Your task to perform on an android device: Open Chrome and go to settings Image 0: 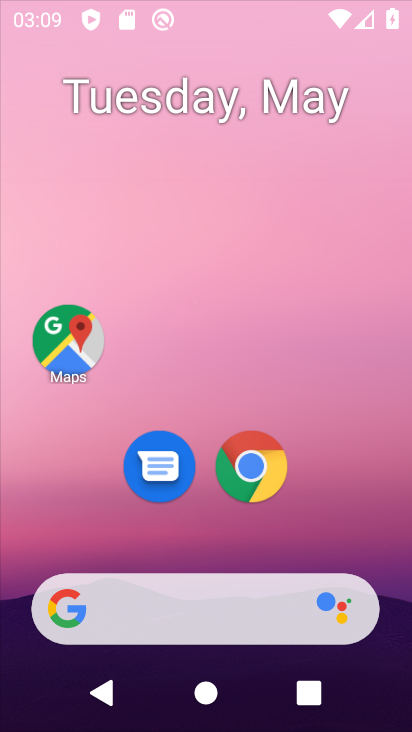
Step 0: drag from (280, 575) to (316, 215)
Your task to perform on an android device: Open Chrome and go to settings Image 1: 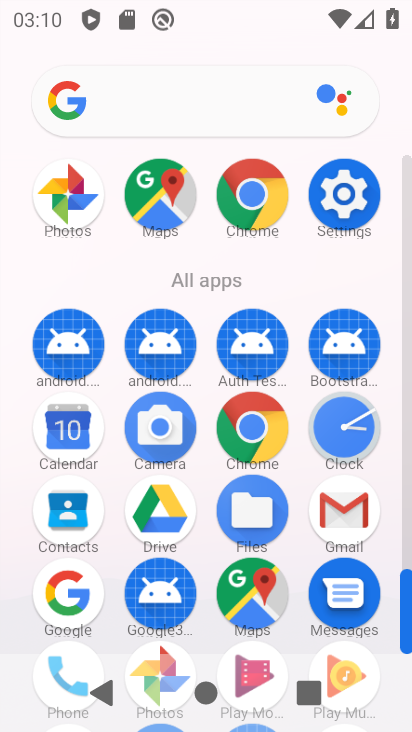
Step 1: click (265, 426)
Your task to perform on an android device: Open Chrome and go to settings Image 2: 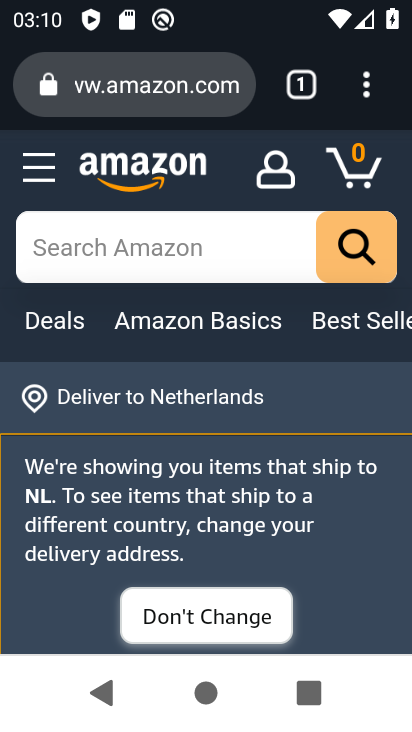
Step 2: click (363, 79)
Your task to perform on an android device: Open Chrome and go to settings Image 3: 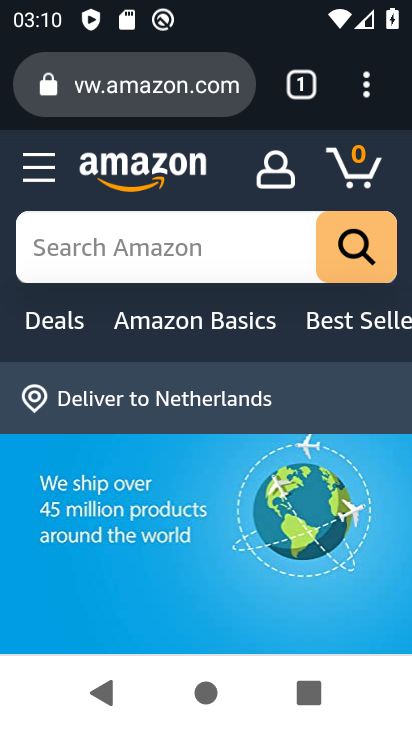
Step 3: click (349, 90)
Your task to perform on an android device: Open Chrome and go to settings Image 4: 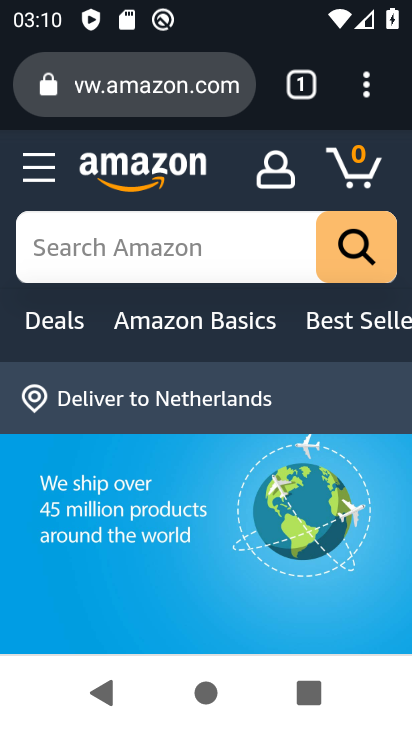
Step 4: click (354, 79)
Your task to perform on an android device: Open Chrome and go to settings Image 5: 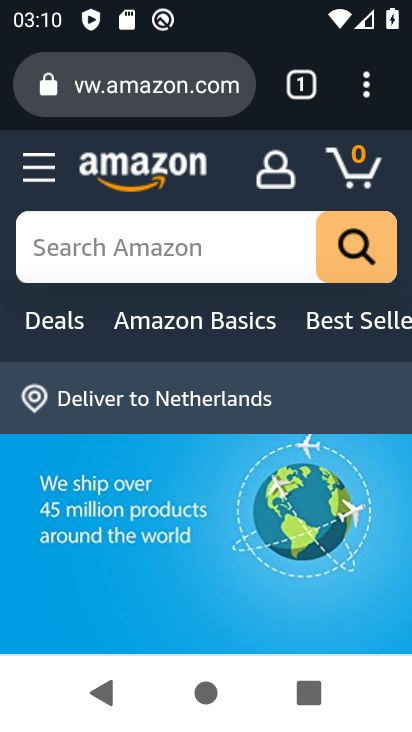
Step 5: click (356, 78)
Your task to perform on an android device: Open Chrome and go to settings Image 6: 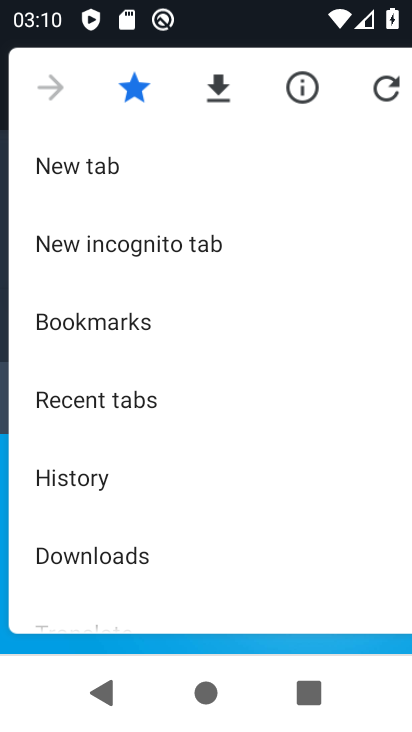
Step 6: drag from (153, 588) to (184, 252)
Your task to perform on an android device: Open Chrome and go to settings Image 7: 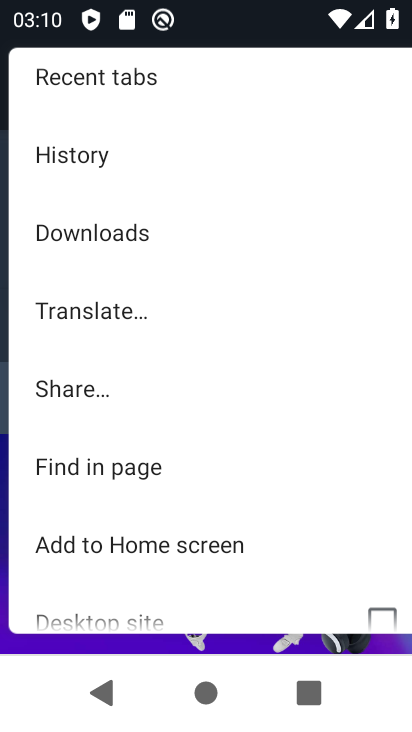
Step 7: drag from (135, 586) to (130, 356)
Your task to perform on an android device: Open Chrome and go to settings Image 8: 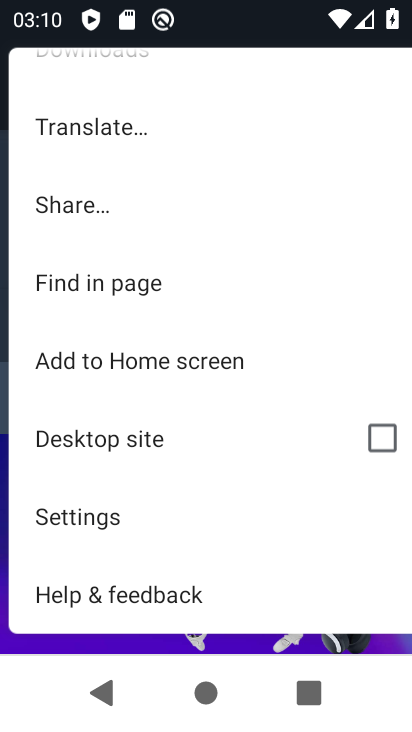
Step 8: click (112, 521)
Your task to perform on an android device: Open Chrome and go to settings Image 9: 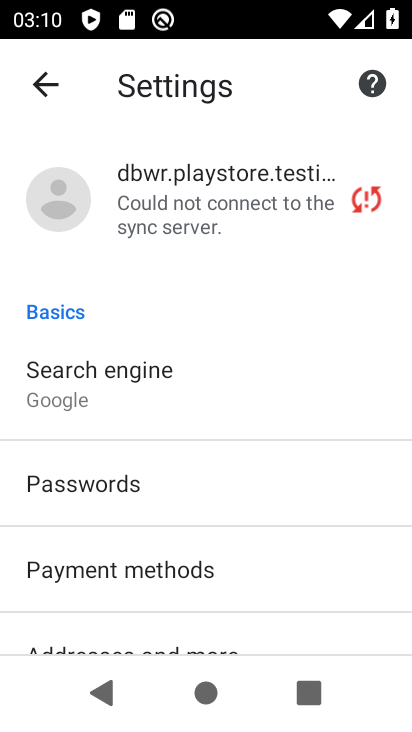
Step 9: task complete